Your task to perform on an android device: read, delete, or share a saved page in the chrome app Image 0: 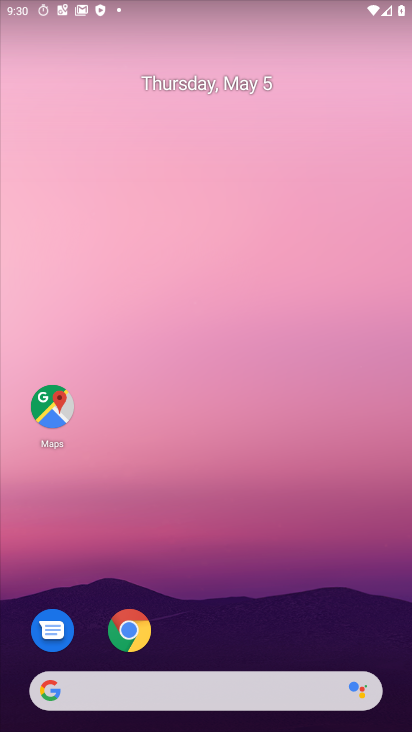
Step 0: click (138, 641)
Your task to perform on an android device: read, delete, or share a saved page in the chrome app Image 1: 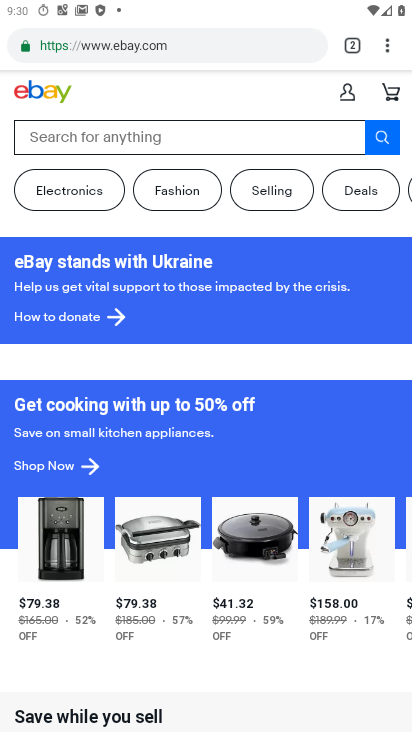
Step 1: drag from (385, 46) to (241, 175)
Your task to perform on an android device: read, delete, or share a saved page in the chrome app Image 2: 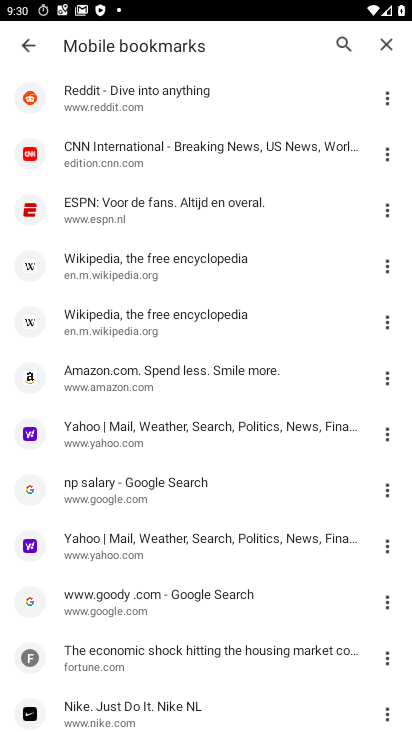
Step 2: click (378, 151)
Your task to perform on an android device: read, delete, or share a saved page in the chrome app Image 3: 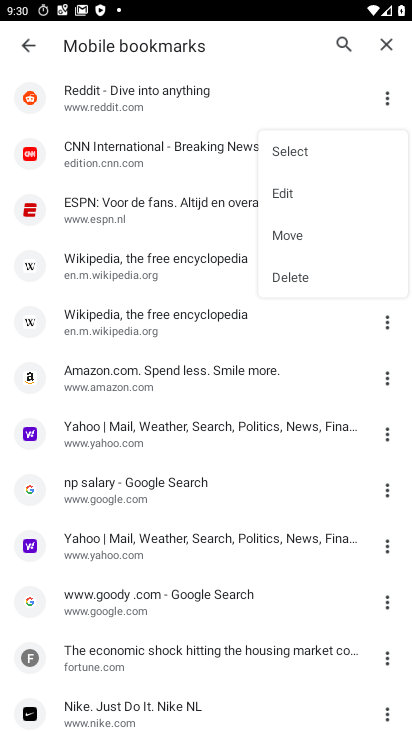
Step 3: click (279, 266)
Your task to perform on an android device: read, delete, or share a saved page in the chrome app Image 4: 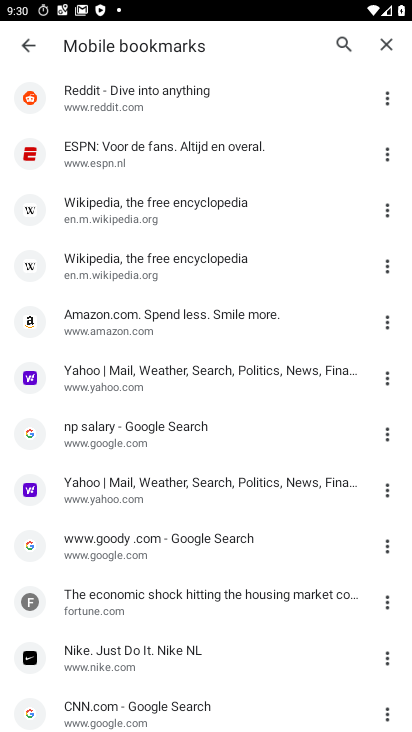
Step 4: task complete